Your task to perform on an android device: Open the Play Movies app and select the watchlist tab. Image 0: 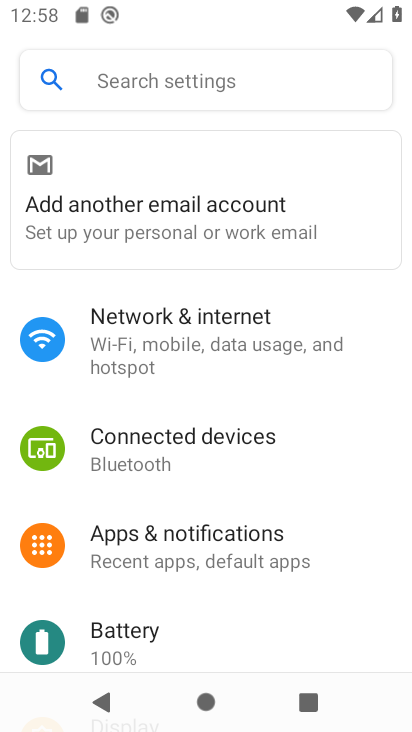
Step 0: press home button
Your task to perform on an android device: Open the Play Movies app and select the watchlist tab. Image 1: 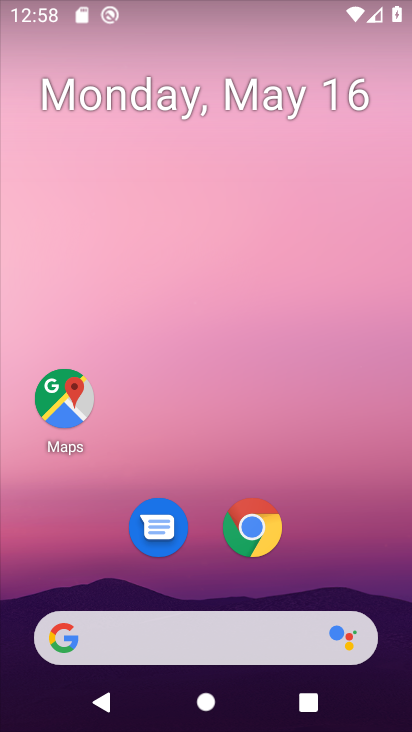
Step 1: drag from (180, 633) to (151, 2)
Your task to perform on an android device: Open the Play Movies app and select the watchlist tab. Image 2: 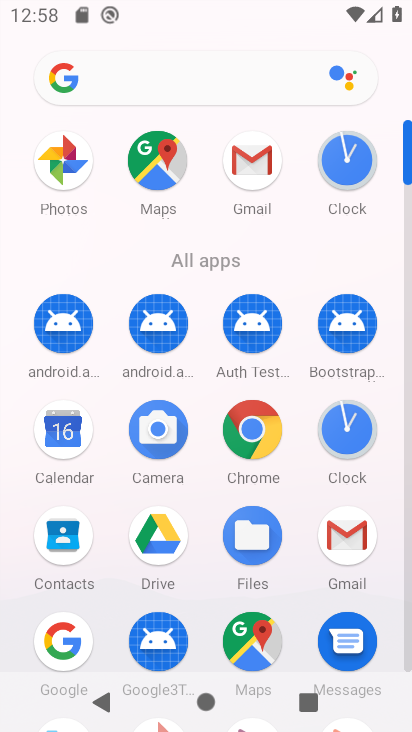
Step 2: drag from (232, 550) to (236, 85)
Your task to perform on an android device: Open the Play Movies app and select the watchlist tab. Image 3: 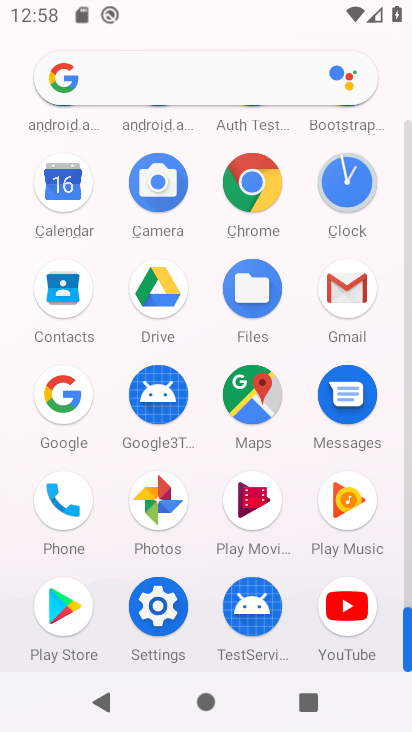
Step 3: click (244, 507)
Your task to perform on an android device: Open the Play Movies app and select the watchlist tab. Image 4: 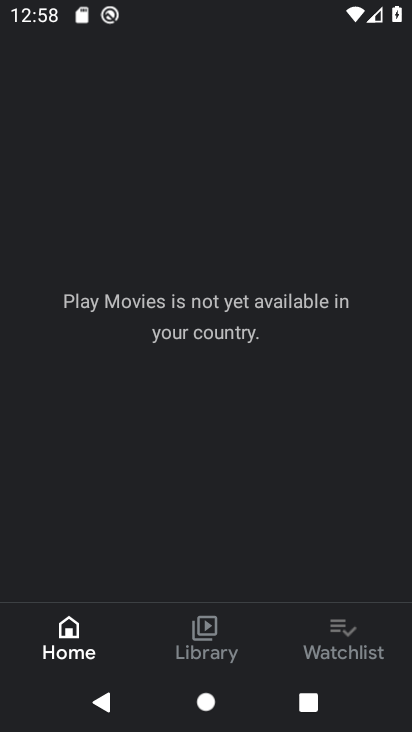
Step 4: click (351, 656)
Your task to perform on an android device: Open the Play Movies app and select the watchlist tab. Image 5: 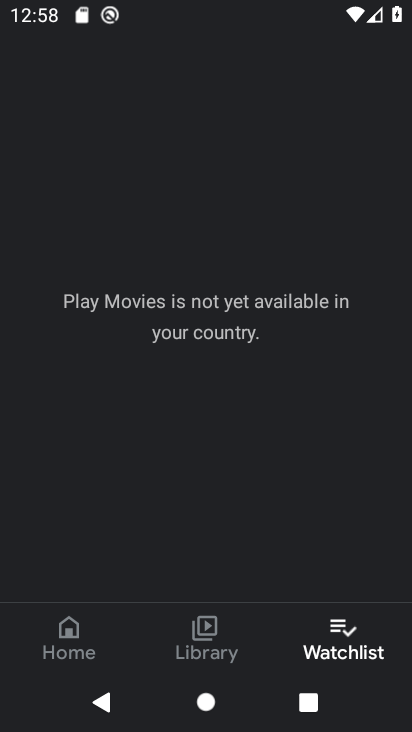
Step 5: task complete